Your task to perform on an android device: change the clock display to show seconds Image 0: 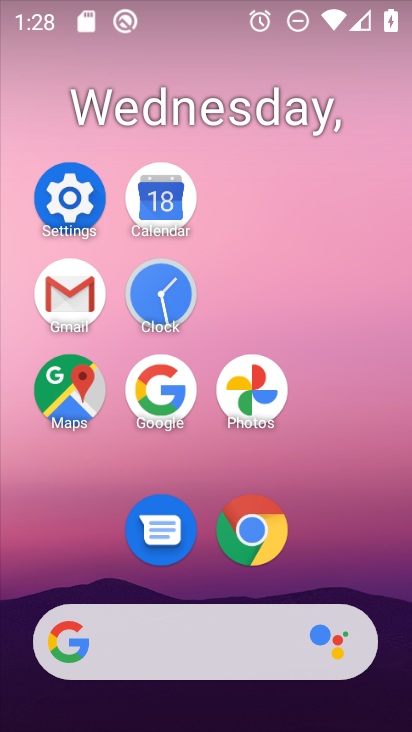
Step 0: click (192, 306)
Your task to perform on an android device: change the clock display to show seconds Image 1: 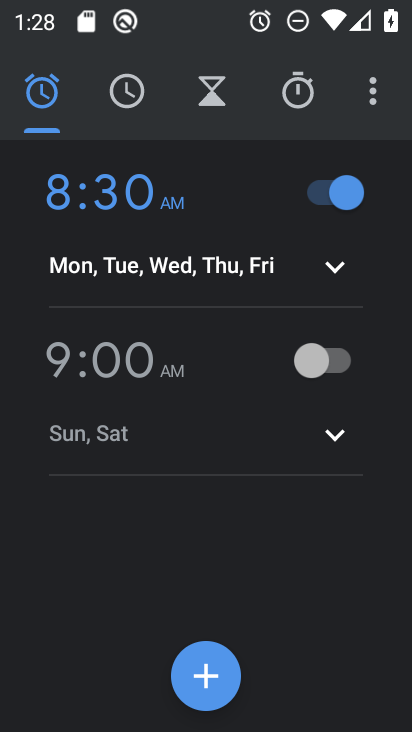
Step 1: click (379, 102)
Your task to perform on an android device: change the clock display to show seconds Image 2: 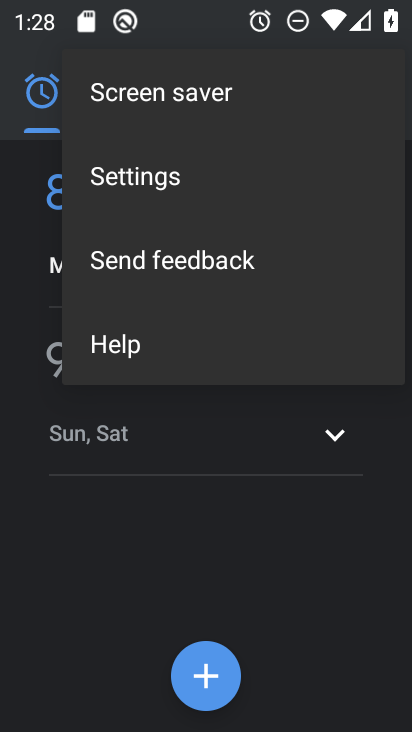
Step 2: click (195, 186)
Your task to perform on an android device: change the clock display to show seconds Image 3: 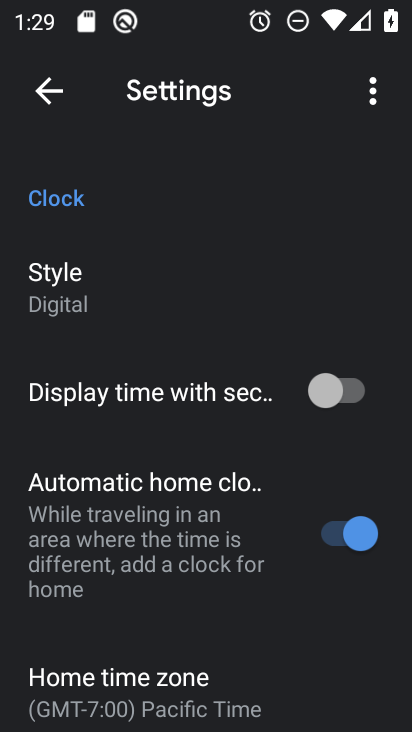
Step 3: click (338, 388)
Your task to perform on an android device: change the clock display to show seconds Image 4: 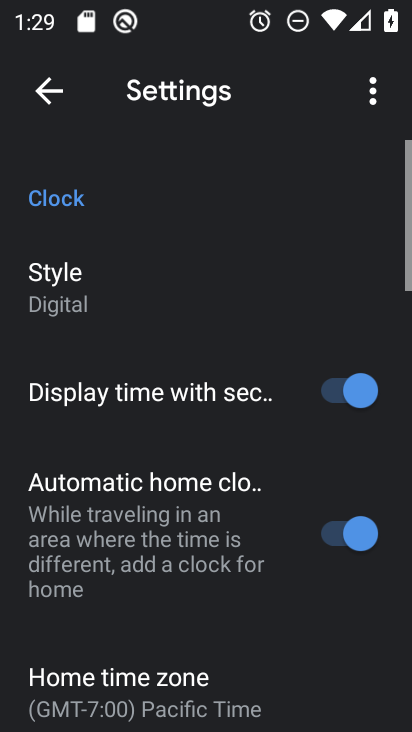
Step 4: task complete